Your task to perform on an android device: Search for pizza restaurants on Maps Image 0: 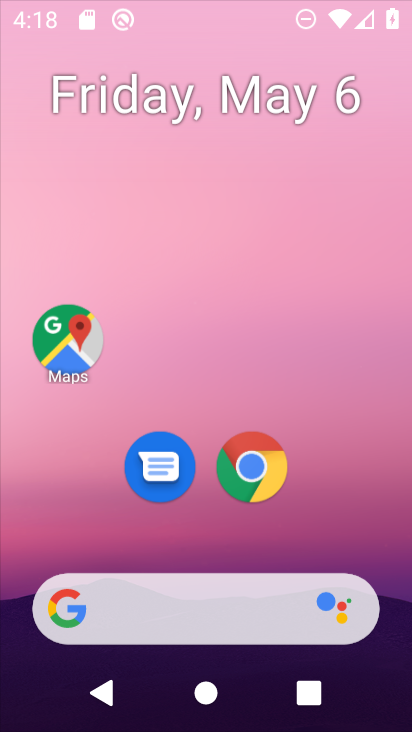
Step 0: drag from (323, 512) to (329, 34)
Your task to perform on an android device: Search for pizza restaurants on Maps Image 1: 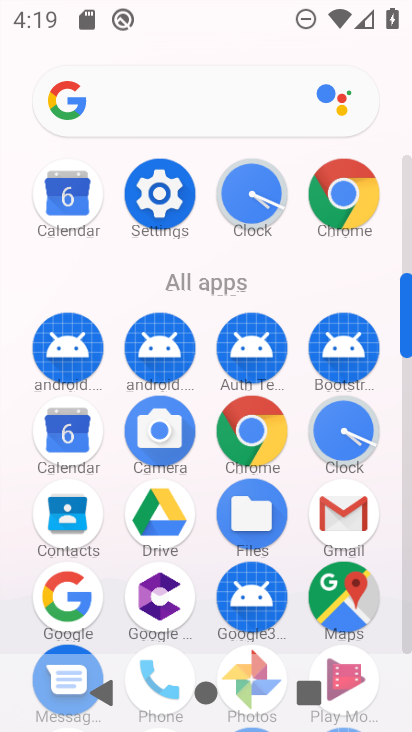
Step 1: click (348, 607)
Your task to perform on an android device: Search for pizza restaurants on Maps Image 2: 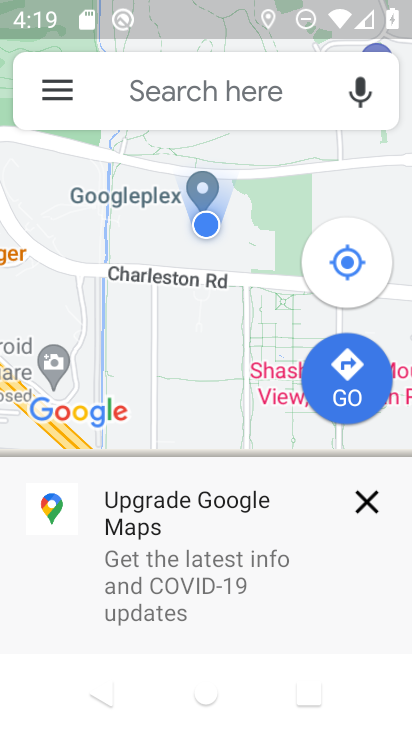
Step 2: click (229, 106)
Your task to perform on an android device: Search for pizza restaurants on Maps Image 3: 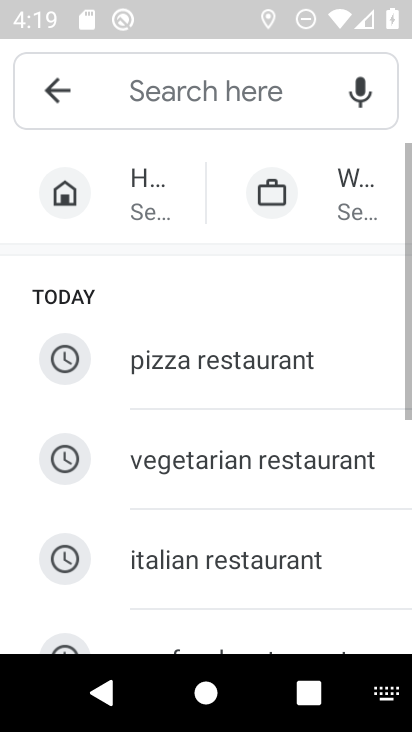
Step 3: click (247, 355)
Your task to perform on an android device: Search for pizza restaurants on Maps Image 4: 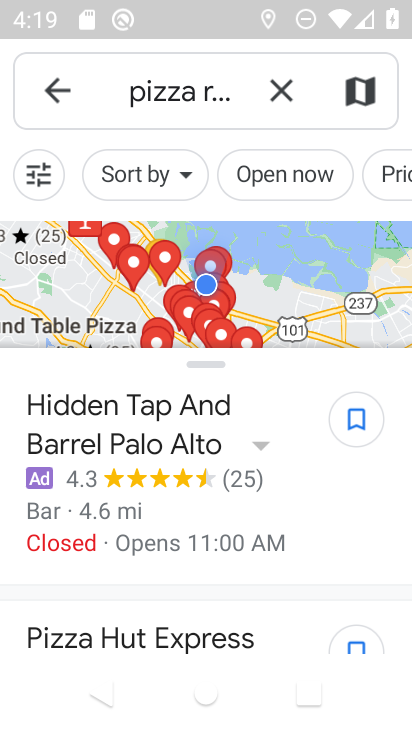
Step 4: task complete